Your task to perform on an android device: check google app version Image 0: 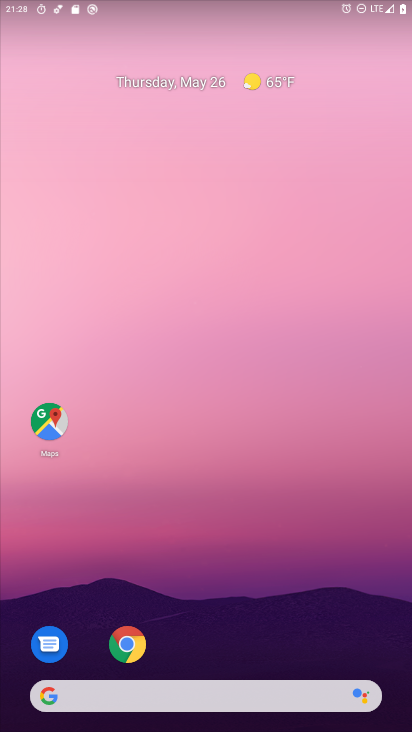
Step 0: click (228, 349)
Your task to perform on an android device: check google app version Image 1: 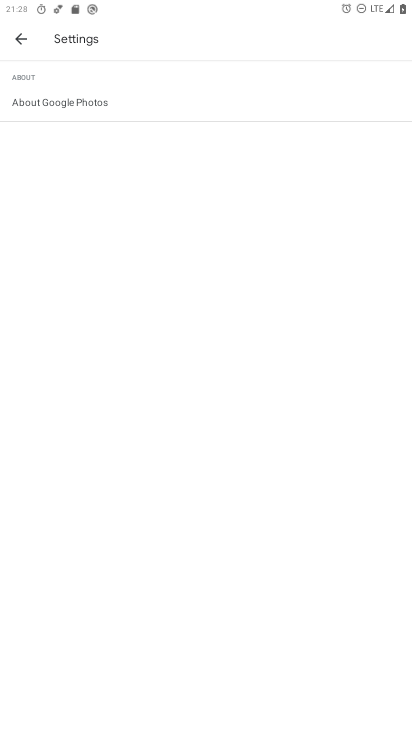
Step 1: press home button
Your task to perform on an android device: check google app version Image 2: 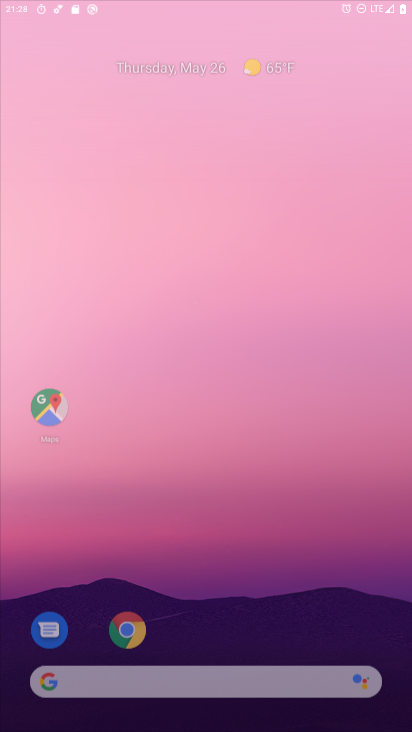
Step 2: drag from (210, 596) to (258, 8)
Your task to perform on an android device: check google app version Image 3: 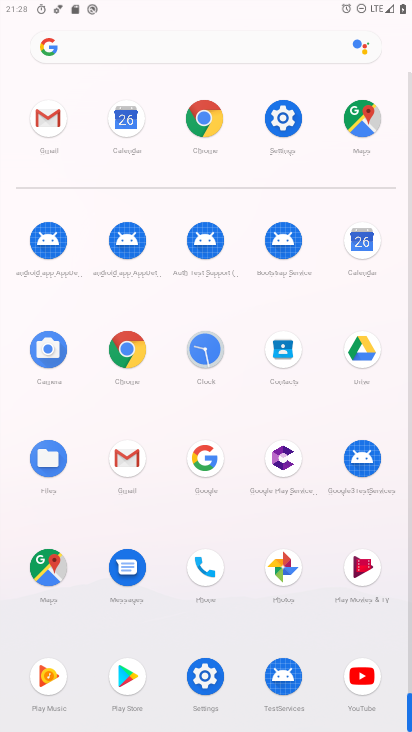
Step 3: drag from (236, 610) to (239, 384)
Your task to perform on an android device: check google app version Image 4: 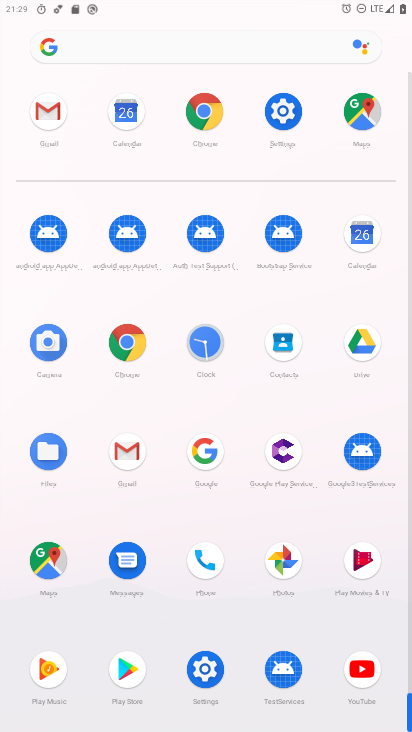
Step 4: click (198, 454)
Your task to perform on an android device: check google app version Image 5: 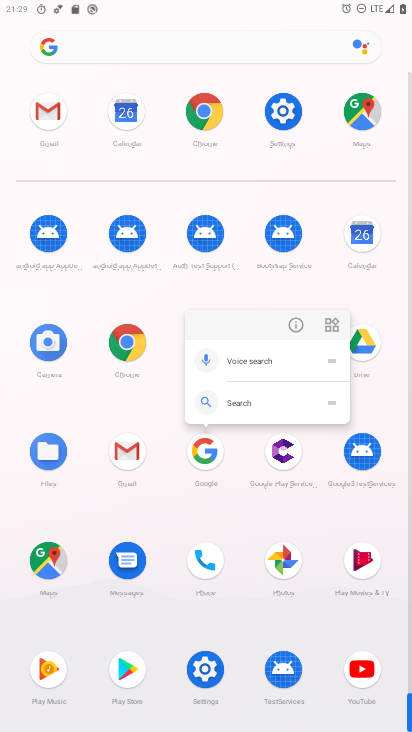
Step 5: click (294, 330)
Your task to perform on an android device: check google app version Image 6: 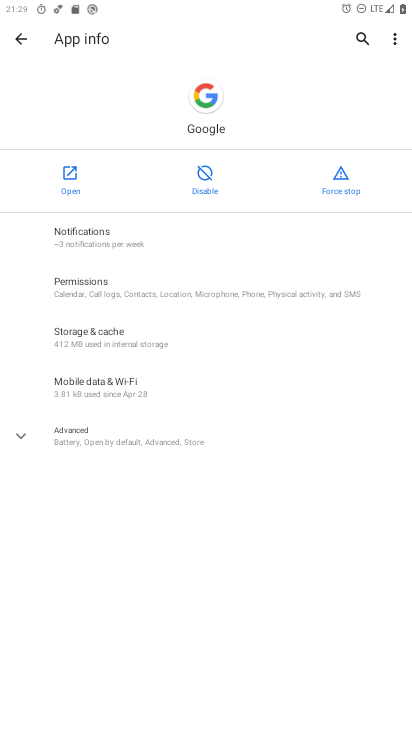
Step 6: click (80, 159)
Your task to perform on an android device: check google app version Image 7: 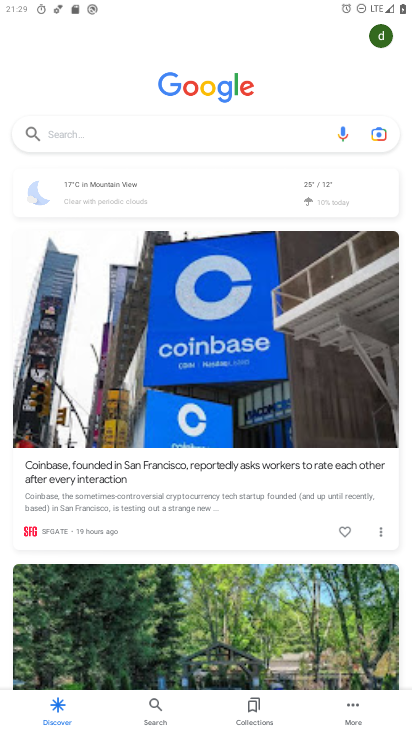
Step 7: drag from (242, 531) to (248, 368)
Your task to perform on an android device: check google app version Image 8: 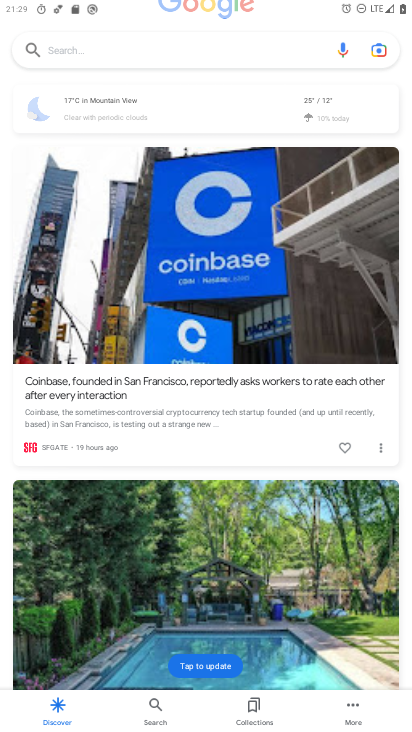
Step 8: drag from (192, 596) to (210, 263)
Your task to perform on an android device: check google app version Image 9: 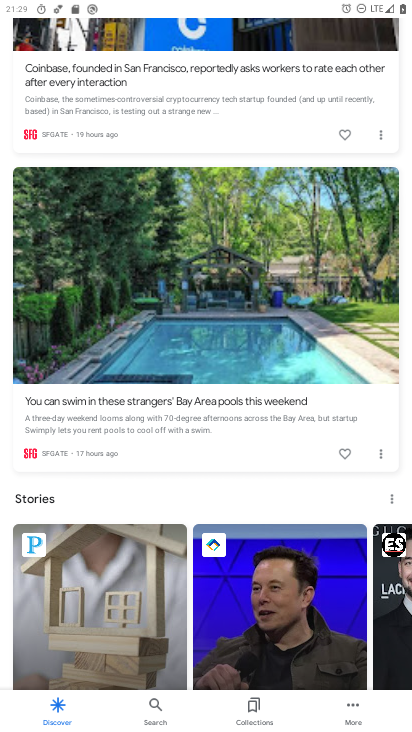
Step 9: click (353, 707)
Your task to perform on an android device: check google app version Image 10: 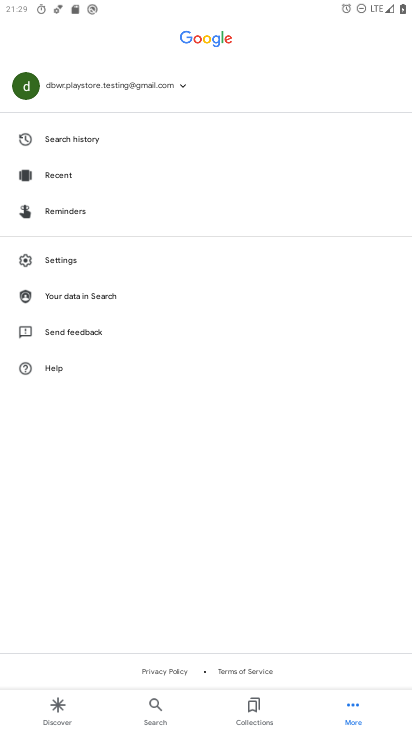
Step 10: click (73, 255)
Your task to perform on an android device: check google app version Image 11: 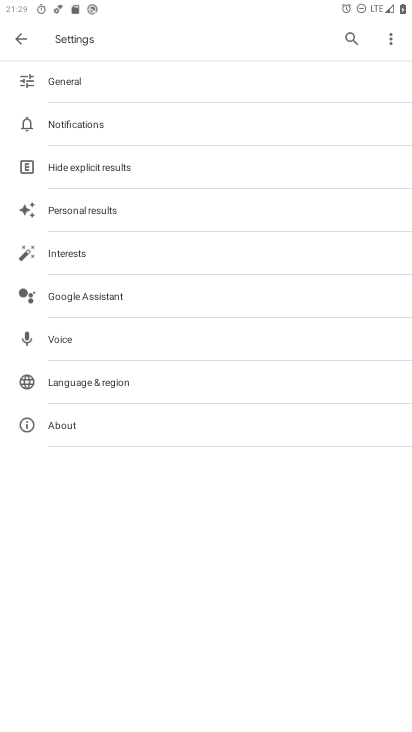
Step 11: click (151, 417)
Your task to perform on an android device: check google app version Image 12: 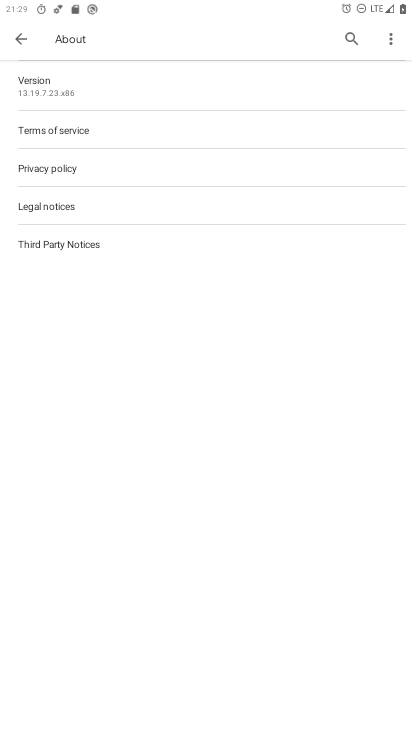
Step 12: click (62, 80)
Your task to perform on an android device: check google app version Image 13: 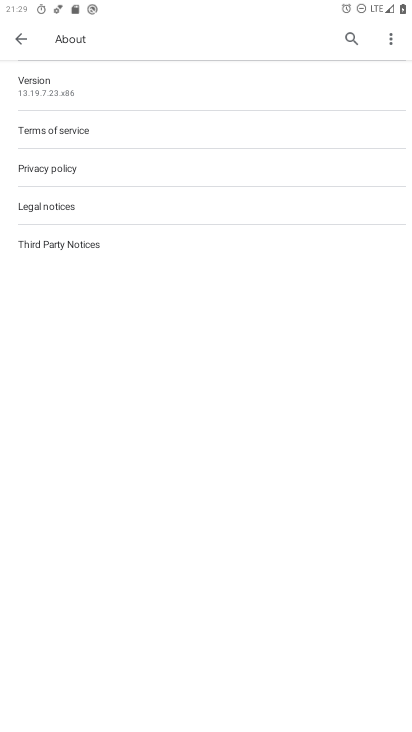
Step 13: drag from (262, 568) to (273, 283)
Your task to perform on an android device: check google app version Image 14: 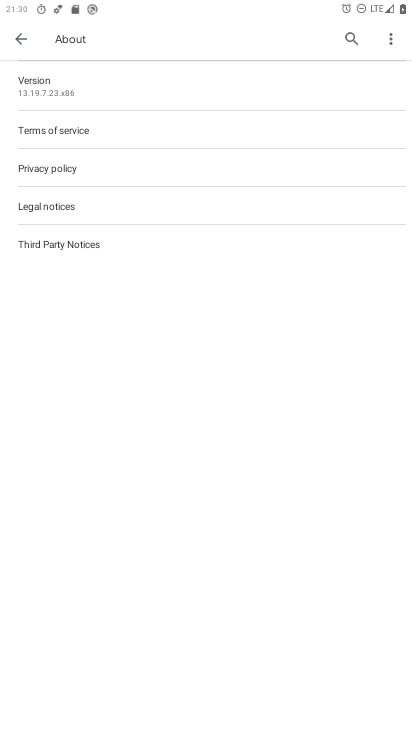
Step 14: drag from (237, 473) to (240, 283)
Your task to perform on an android device: check google app version Image 15: 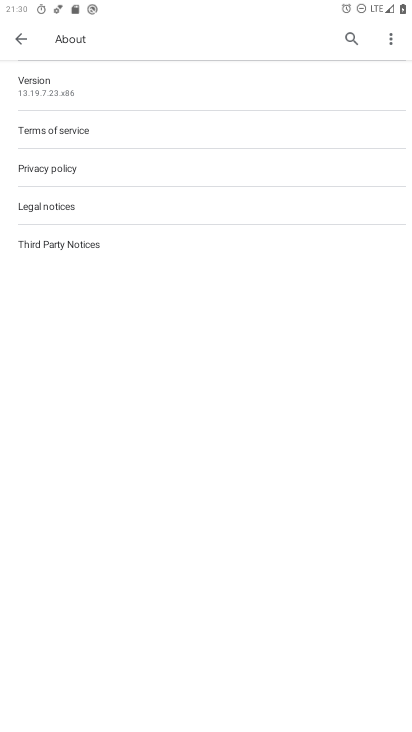
Step 15: click (66, 93)
Your task to perform on an android device: check google app version Image 16: 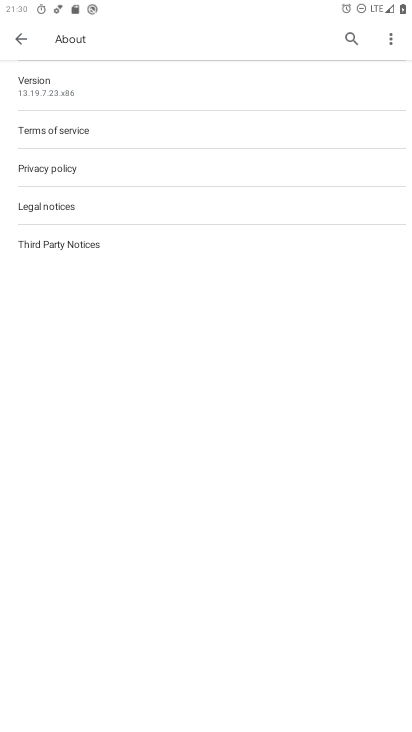
Step 16: task complete